Your task to perform on an android device: find which apps use the phone's location Image 0: 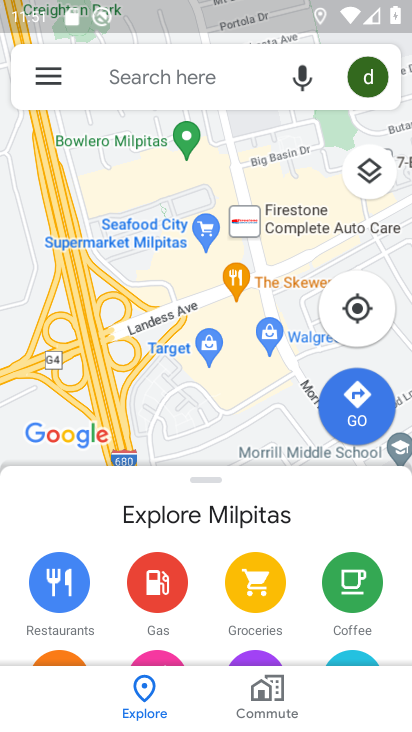
Step 0: press home button
Your task to perform on an android device: find which apps use the phone's location Image 1: 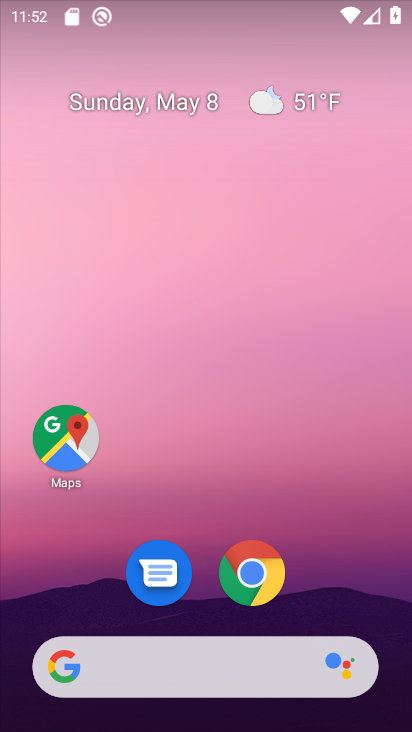
Step 1: drag from (186, 640) to (186, 157)
Your task to perform on an android device: find which apps use the phone's location Image 2: 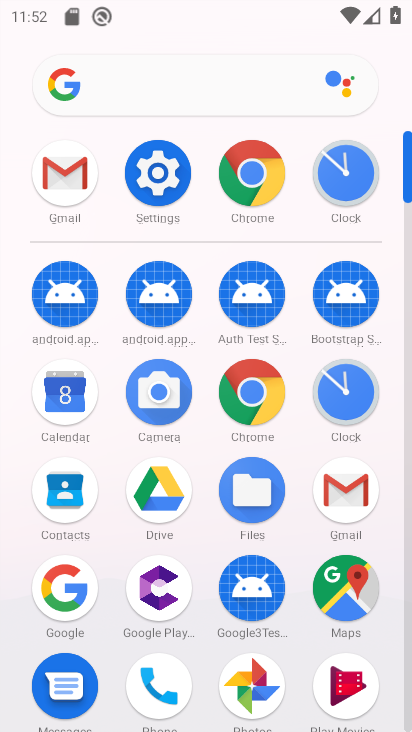
Step 2: click (156, 170)
Your task to perform on an android device: find which apps use the phone's location Image 3: 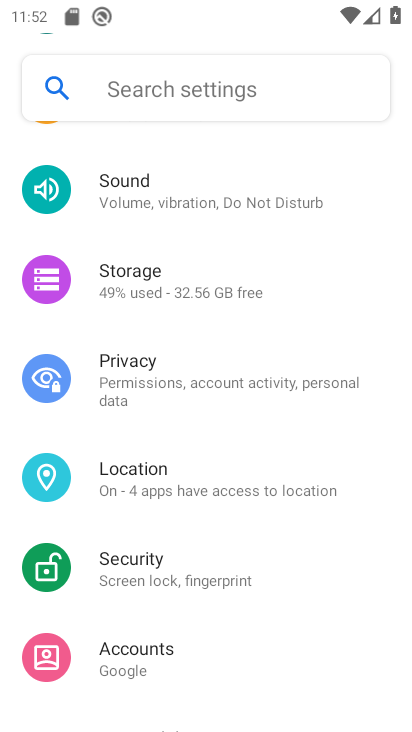
Step 3: click (147, 474)
Your task to perform on an android device: find which apps use the phone's location Image 4: 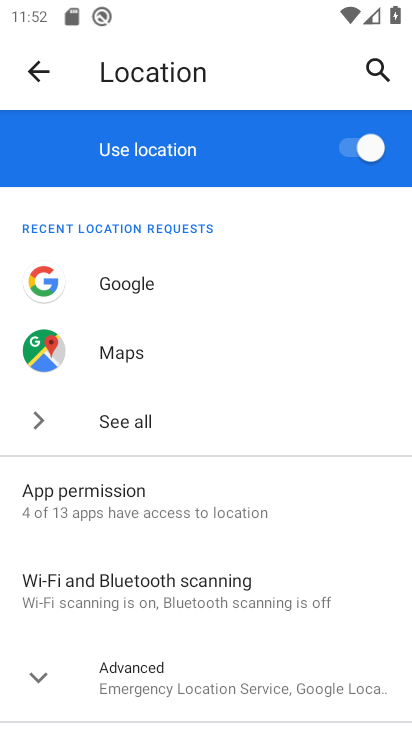
Step 4: click (67, 490)
Your task to perform on an android device: find which apps use the phone's location Image 5: 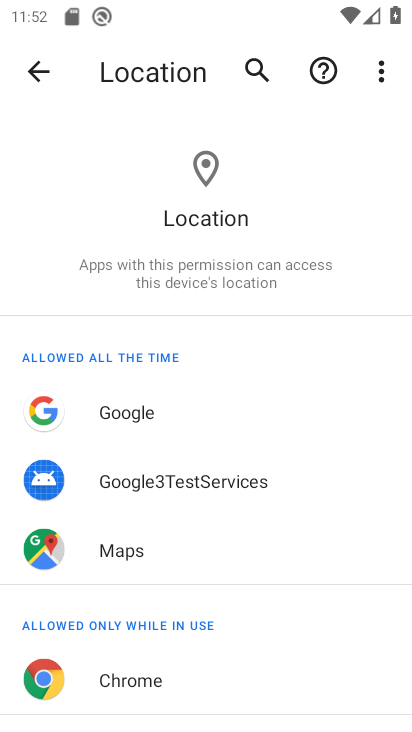
Step 5: task complete